Your task to perform on an android device: set the stopwatch Image 0: 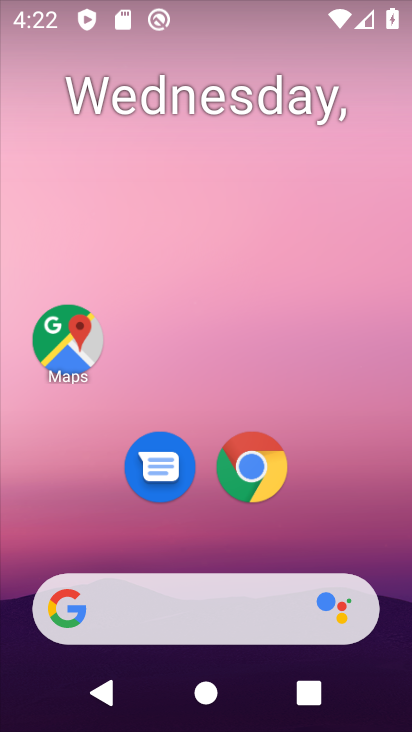
Step 0: drag from (391, 612) to (387, 204)
Your task to perform on an android device: set the stopwatch Image 1: 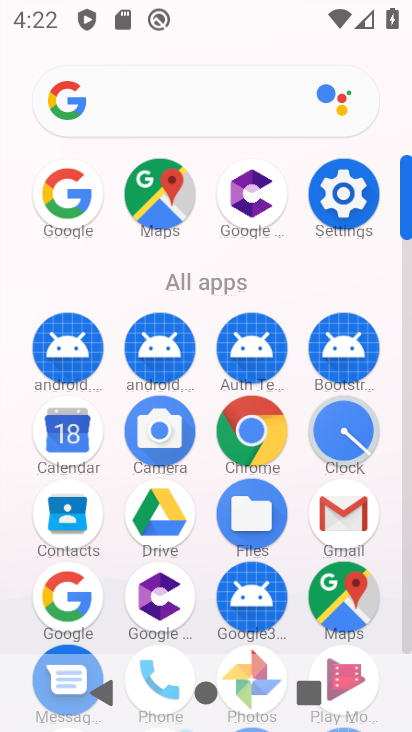
Step 1: click (336, 440)
Your task to perform on an android device: set the stopwatch Image 2: 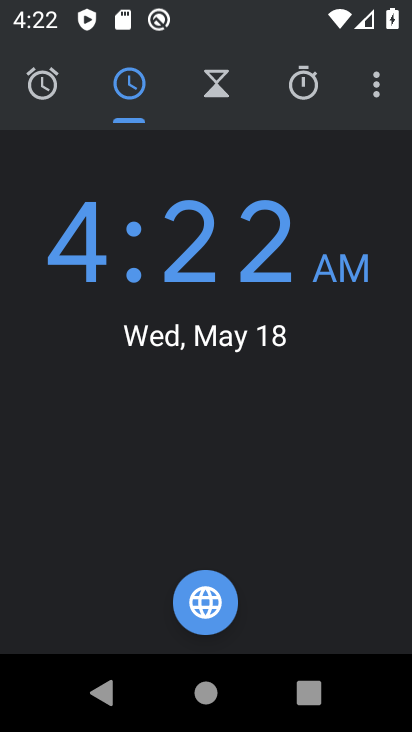
Step 2: click (374, 79)
Your task to perform on an android device: set the stopwatch Image 3: 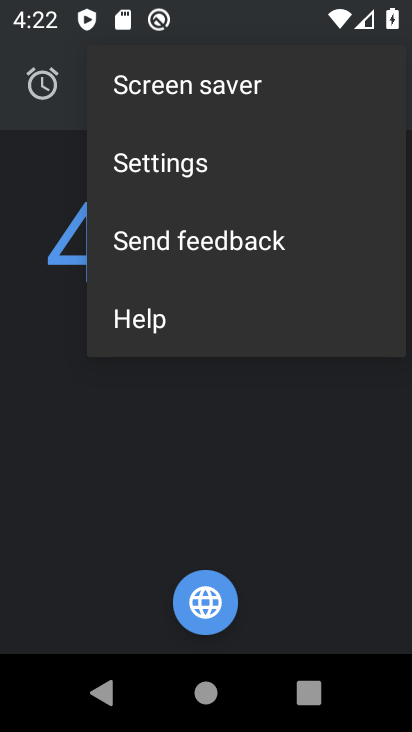
Step 3: click (45, 286)
Your task to perform on an android device: set the stopwatch Image 4: 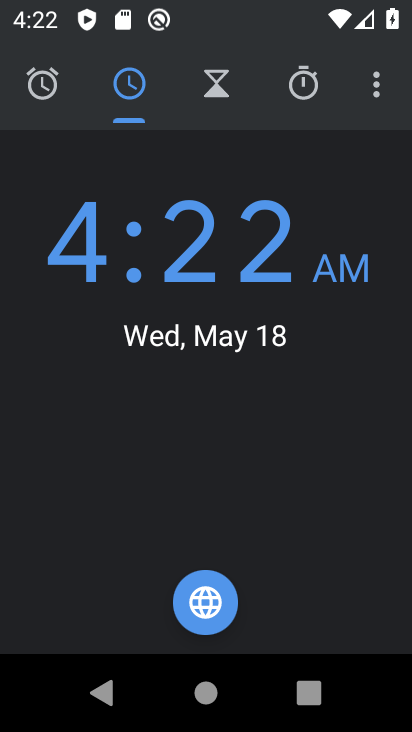
Step 4: click (304, 81)
Your task to perform on an android device: set the stopwatch Image 5: 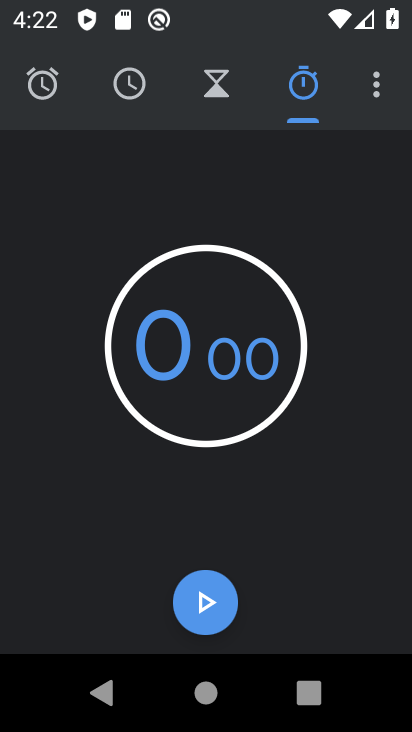
Step 5: click (223, 592)
Your task to perform on an android device: set the stopwatch Image 6: 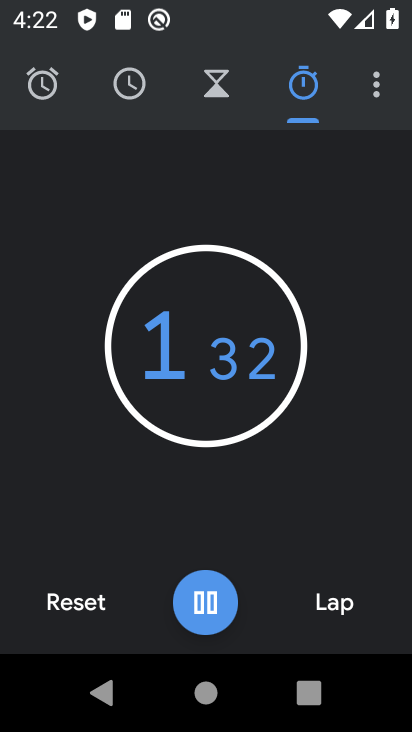
Step 6: task complete